Your task to perform on an android device: Toggle the flashlight Image 0: 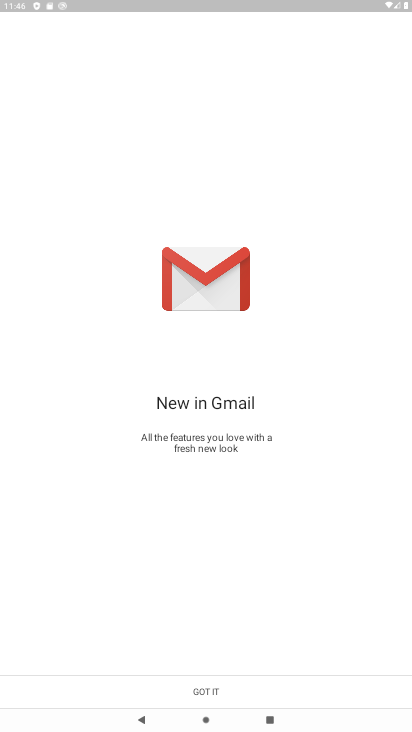
Step 0: press home button
Your task to perform on an android device: Toggle the flashlight Image 1: 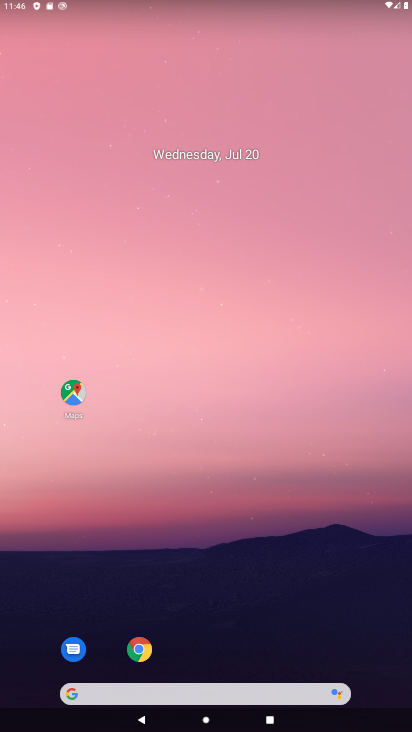
Step 1: drag from (255, 642) to (195, 143)
Your task to perform on an android device: Toggle the flashlight Image 2: 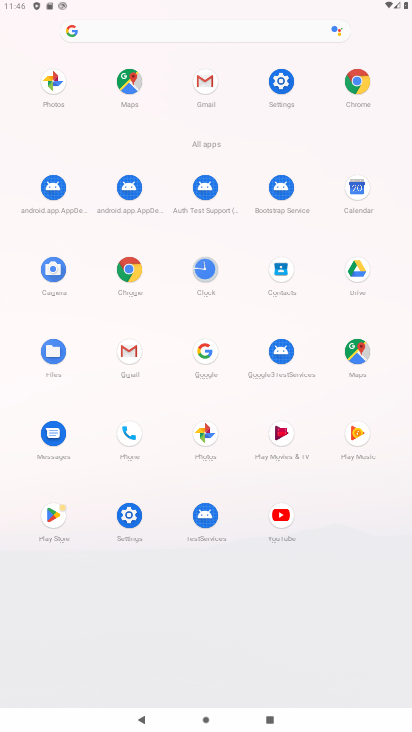
Step 2: click (62, 101)
Your task to perform on an android device: Toggle the flashlight Image 3: 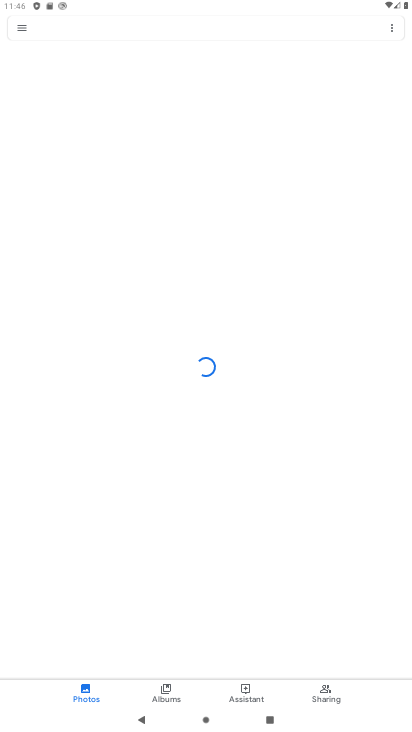
Step 3: task complete